Your task to perform on an android device: Open Wikipedia Image 0: 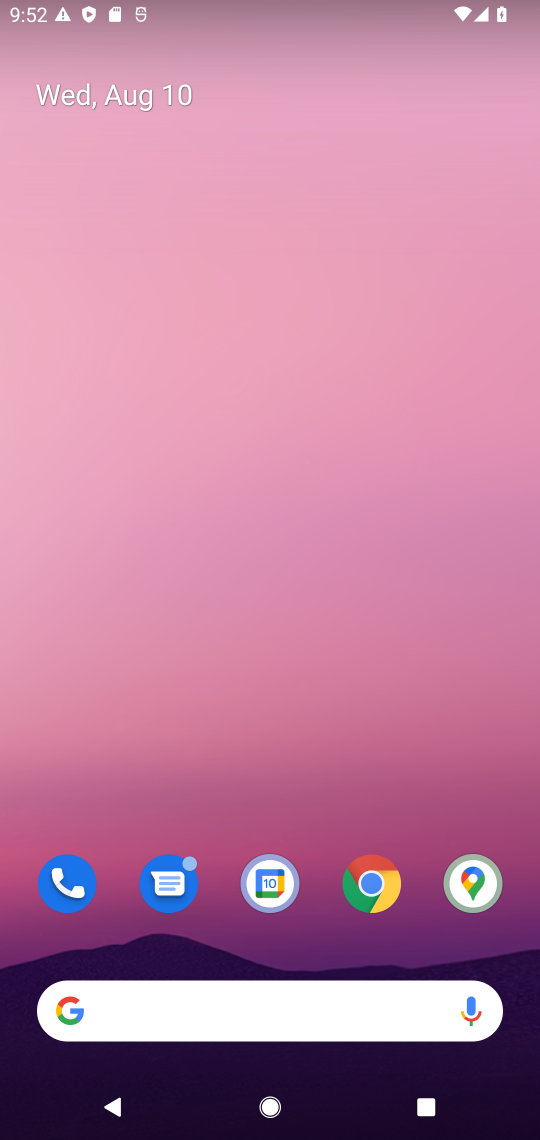
Step 0: drag from (246, 996) to (165, 184)
Your task to perform on an android device: Open Wikipedia Image 1: 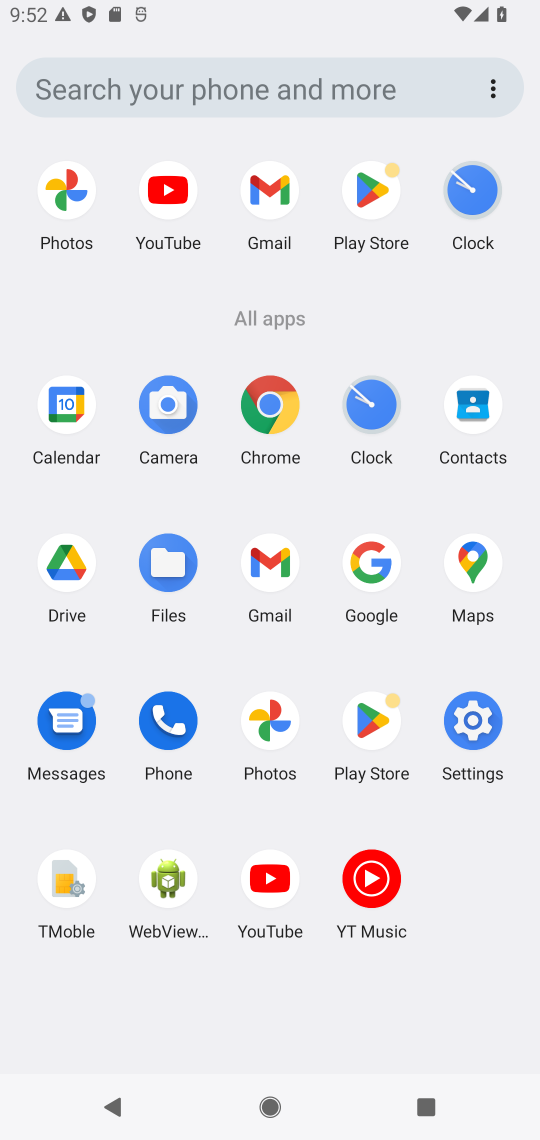
Step 1: click (261, 432)
Your task to perform on an android device: Open Wikipedia Image 2: 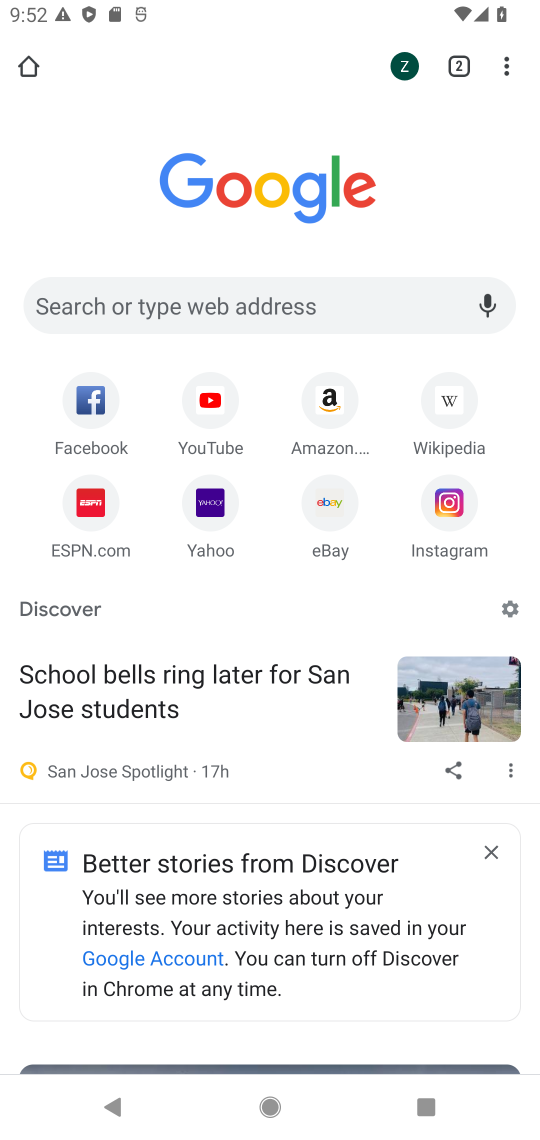
Step 2: click (71, 319)
Your task to perform on an android device: Open Wikipedia Image 3: 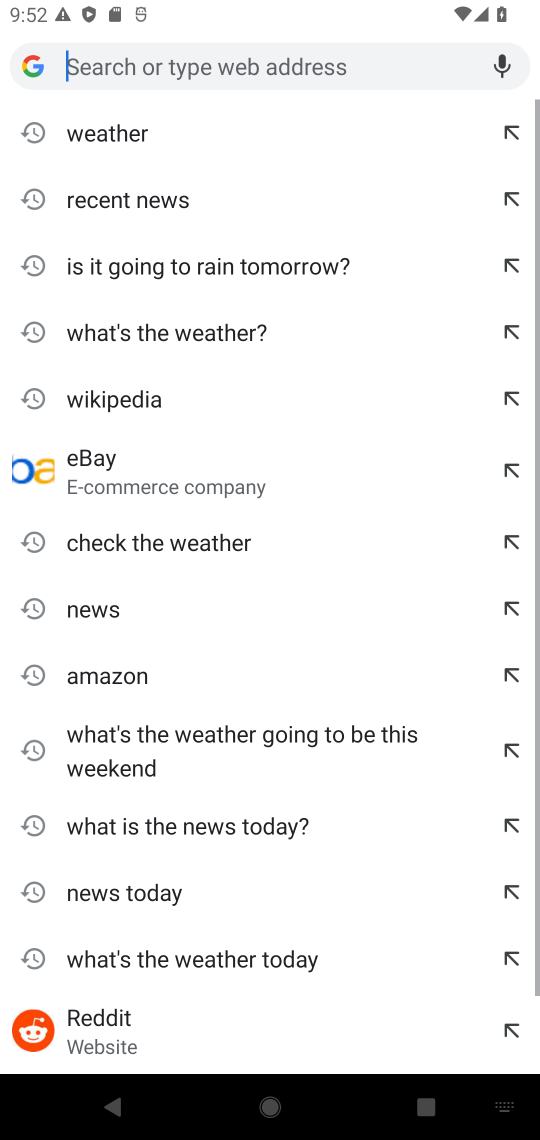
Step 3: click (193, 66)
Your task to perform on an android device: Open Wikipedia Image 4: 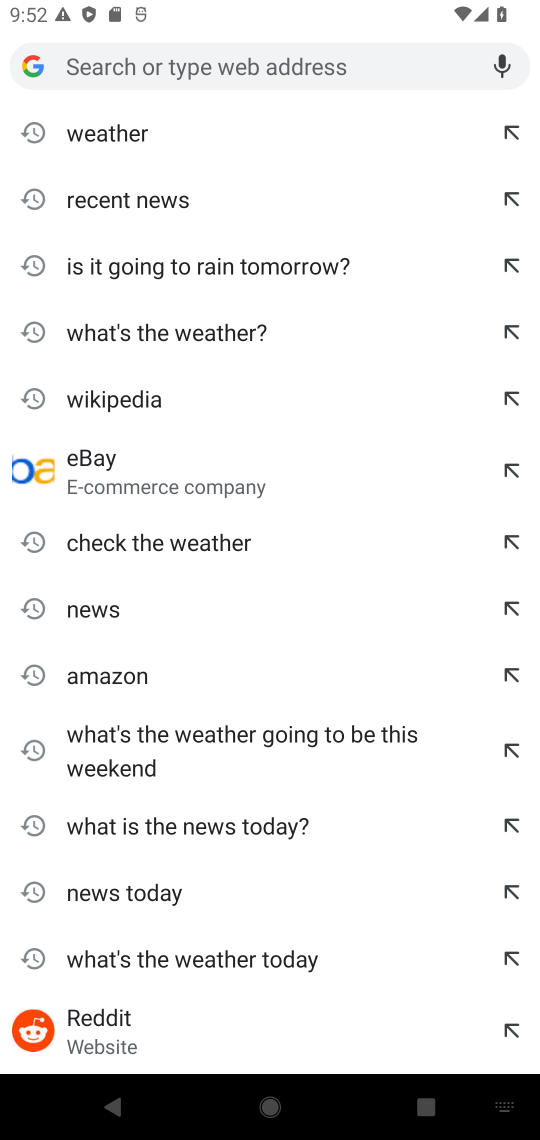
Step 4: type "Wikipedia"
Your task to perform on an android device: Open Wikipedia Image 5: 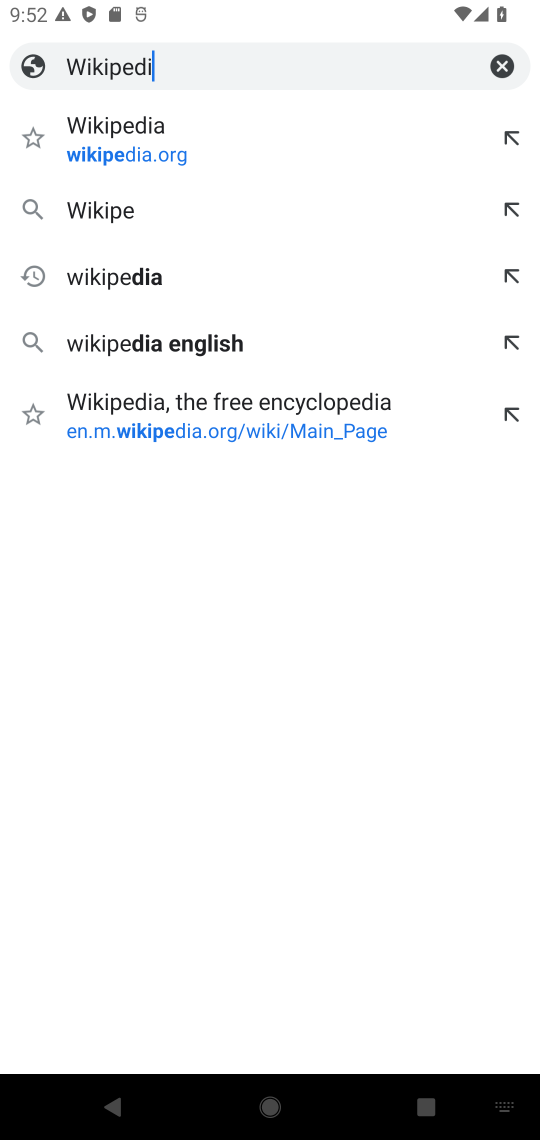
Step 5: type ""
Your task to perform on an android device: Open Wikipedia Image 6: 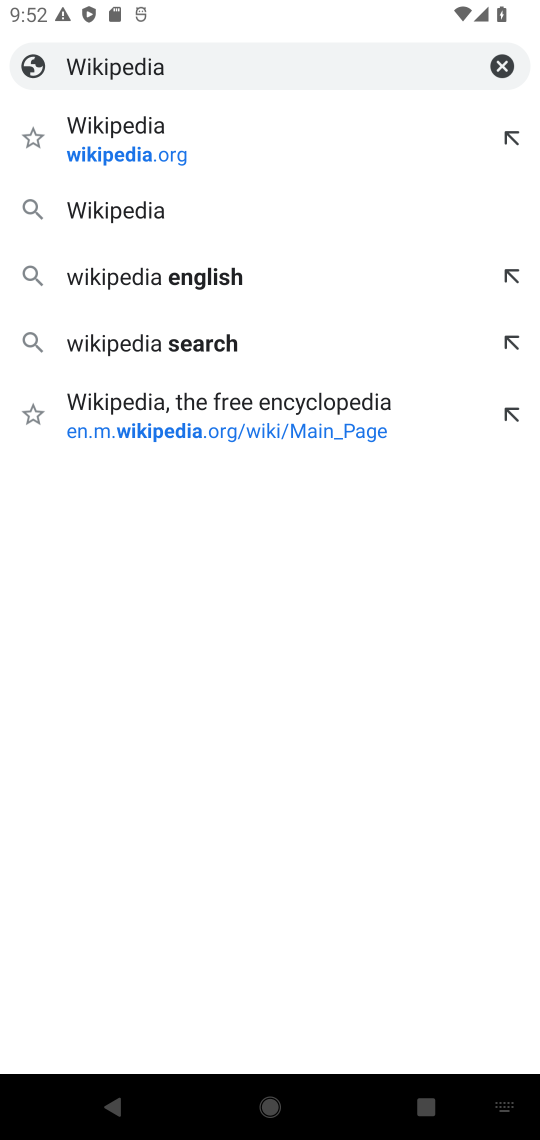
Step 6: click (100, 148)
Your task to perform on an android device: Open Wikipedia Image 7: 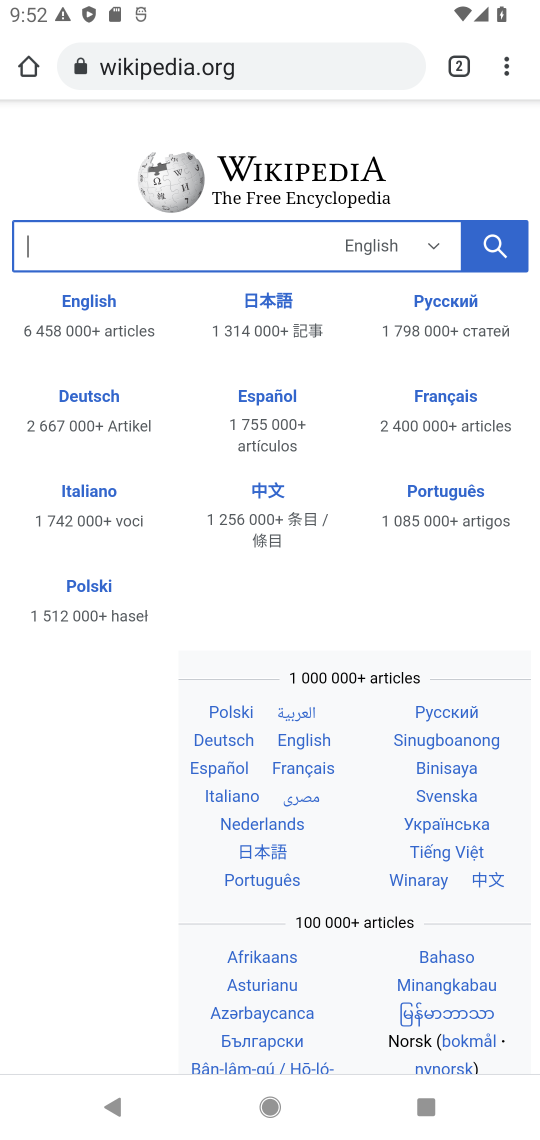
Step 7: task complete